Your task to perform on an android device: open chrome and create a bookmark for the current page Image 0: 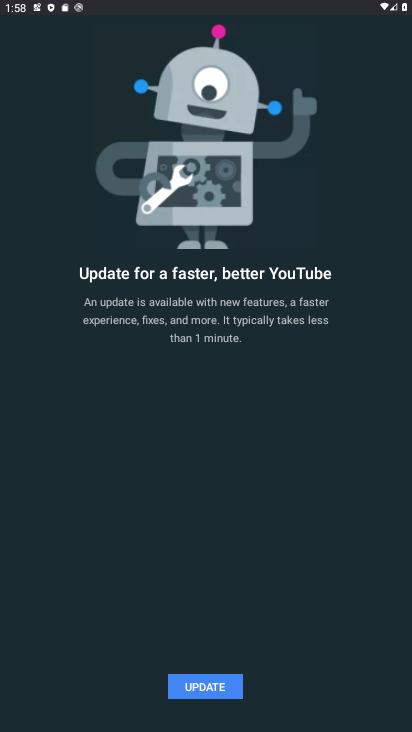
Step 0: press home button
Your task to perform on an android device: open chrome and create a bookmark for the current page Image 1: 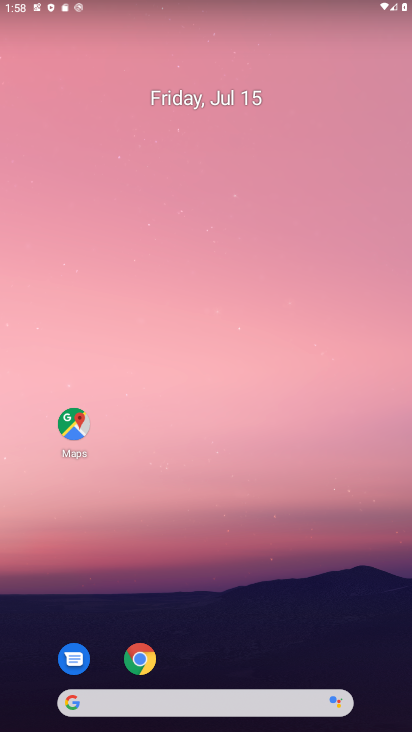
Step 1: drag from (278, 633) to (240, 150)
Your task to perform on an android device: open chrome and create a bookmark for the current page Image 2: 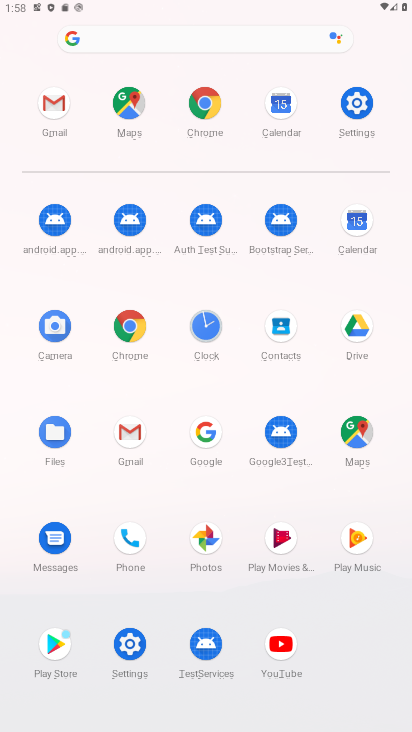
Step 2: click (199, 101)
Your task to perform on an android device: open chrome and create a bookmark for the current page Image 3: 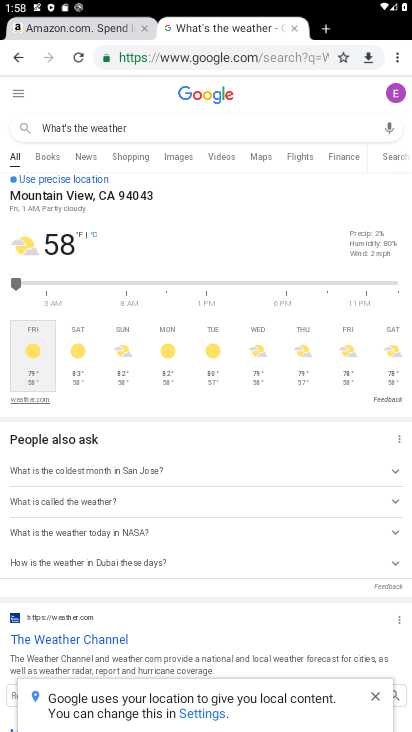
Step 3: click (345, 56)
Your task to perform on an android device: open chrome and create a bookmark for the current page Image 4: 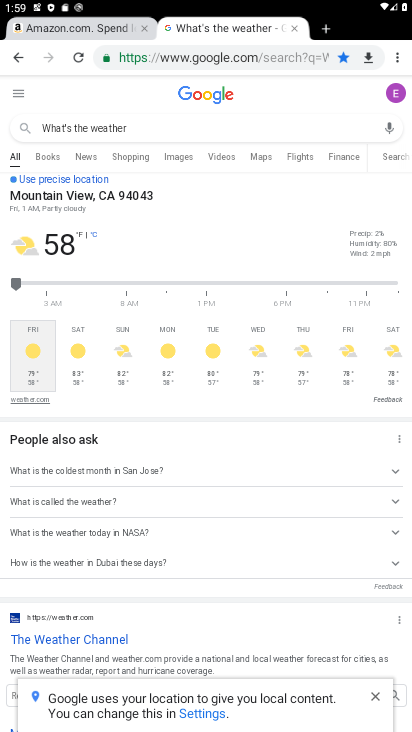
Step 4: task complete